Your task to perform on an android device: Go to Amazon Image 0: 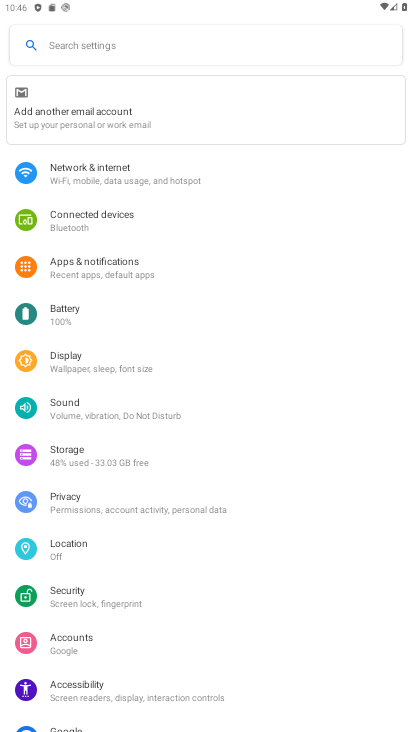
Step 0: press home button
Your task to perform on an android device: Go to Amazon Image 1: 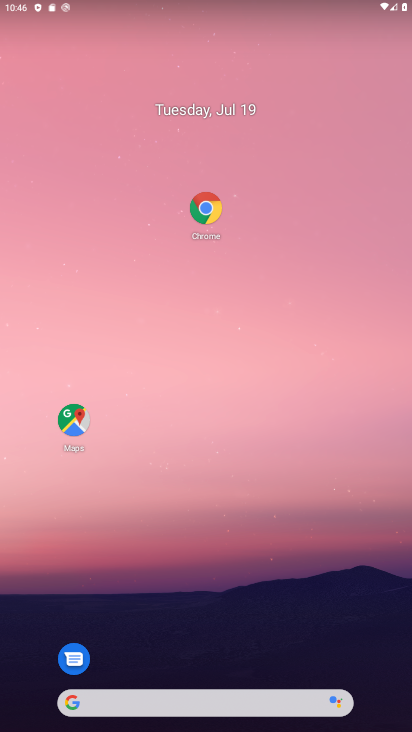
Step 1: click (204, 213)
Your task to perform on an android device: Go to Amazon Image 2: 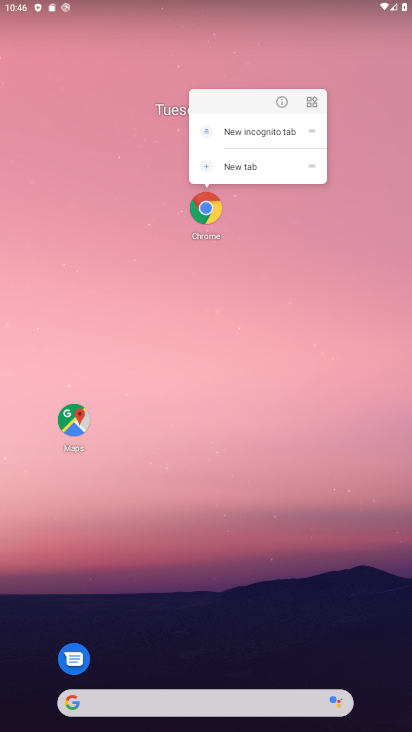
Step 2: click (206, 212)
Your task to perform on an android device: Go to Amazon Image 3: 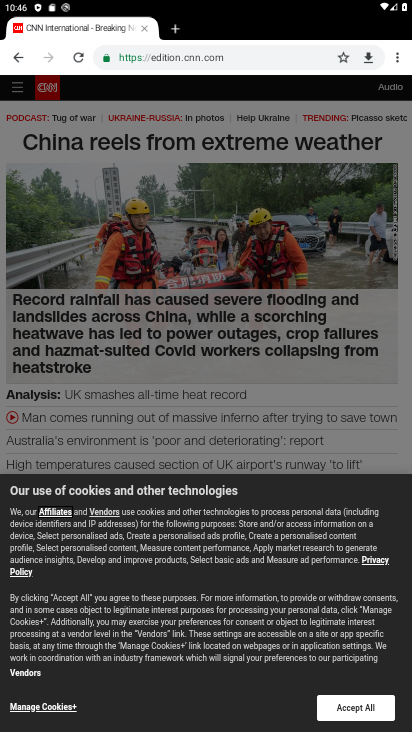
Step 3: click (392, 58)
Your task to perform on an android device: Go to Amazon Image 4: 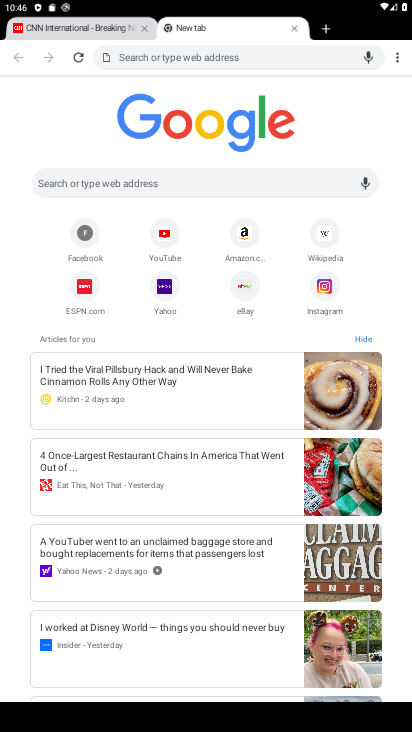
Step 4: click (243, 242)
Your task to perform on an android device: Go to Amazon Image 5: 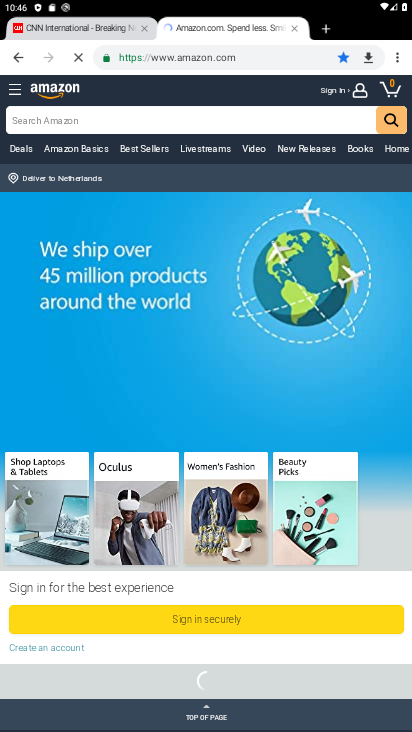
Step 5: task complete